Your task to perform on an android device: turn off location Image 0: 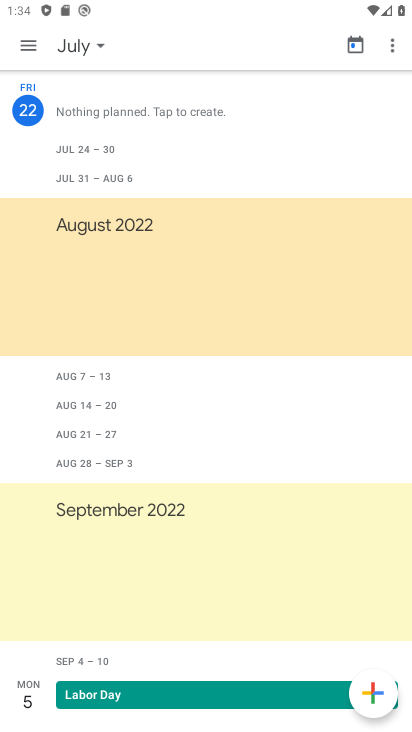
Step 0: press home button
Your task to perform on an android device: turn off location Image 1: 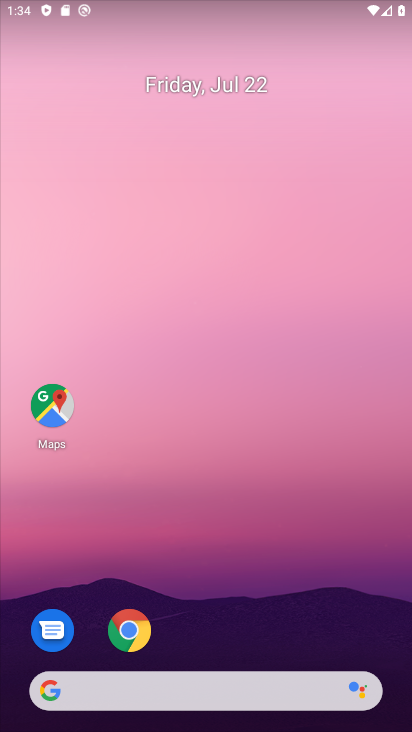
Step 1: drag from (205, 579) to (211, 155)
Your task to perform on an android device: turn off location Image 2: 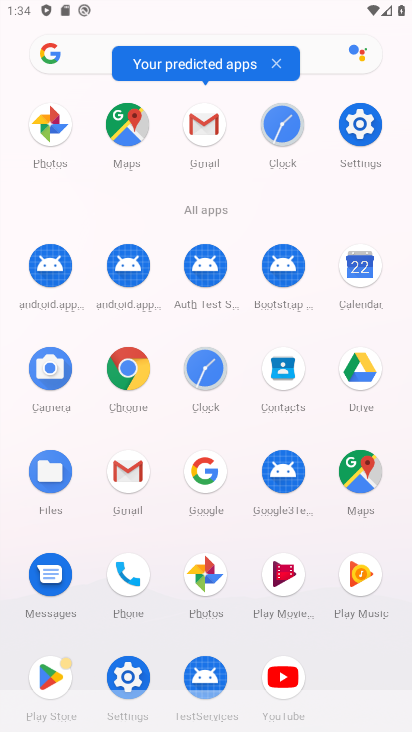
Step 2: click (354, 127)
Your task to perform on an android device: turn off location Image 3: 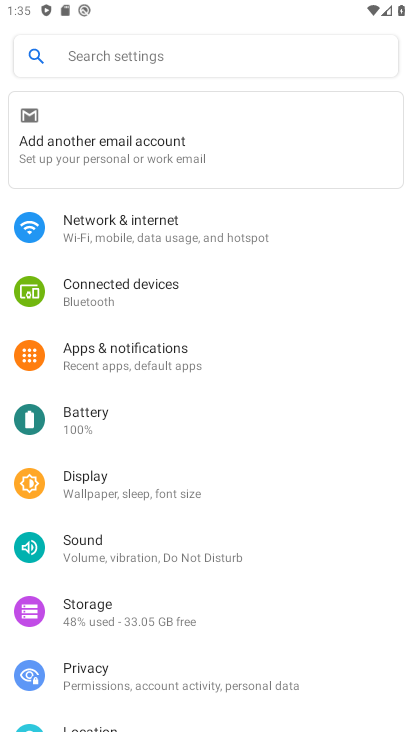
Step 3: drag from (184, 675) to (185, 388)
Your task to perform on an android device: turn off location Image 4: 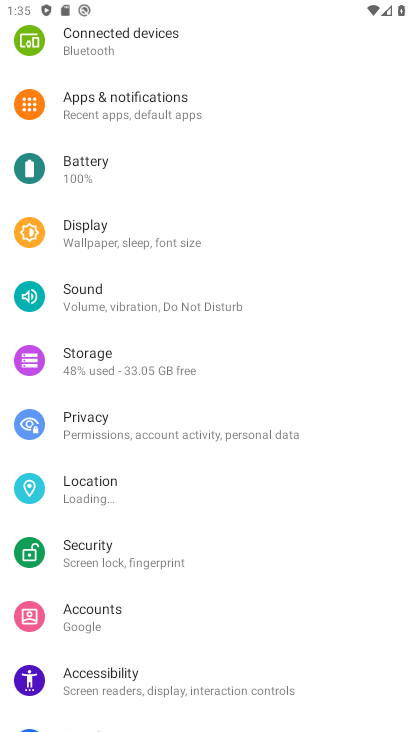
Step 4: click (131, 492)
Your task to perform on an android device: turn off location Image 5: 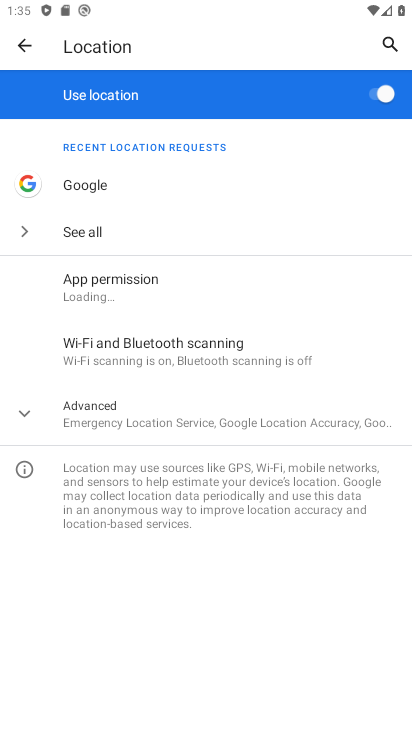
Step 5: click (381, 95)
Your task to perform on an android device: turn off location Image 6: 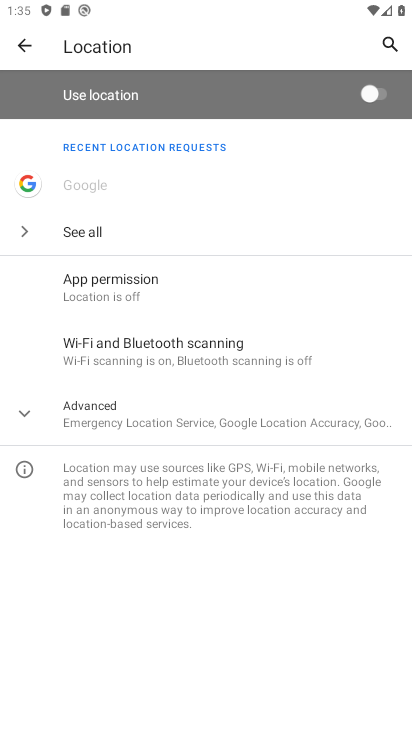
Step 6: task complete